Your task to perform on an android device: Open Youtube and go to "Your channel" Image 0: 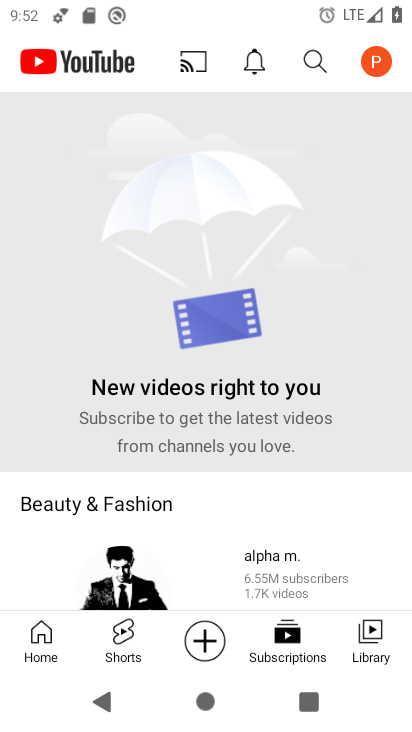
Step 0: press home button
Your task to perform on an android device: Open Youtube and go to "Your channel" Image 1: 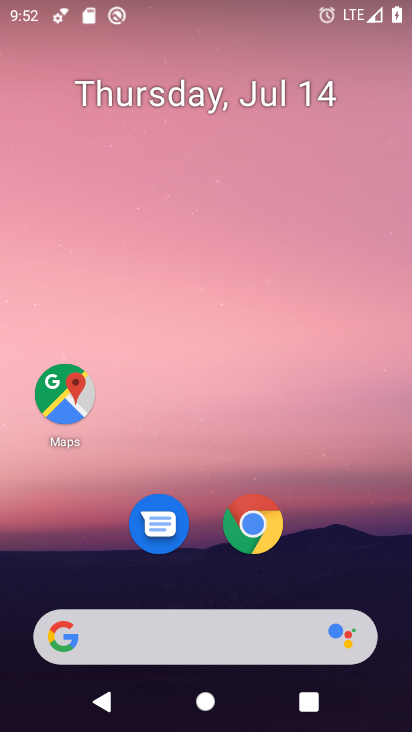
Step 1: drag from (326, 548) to (327, 0)
Your task to perform on an android device: Open Youtube and go to "Your channel" Image 2: 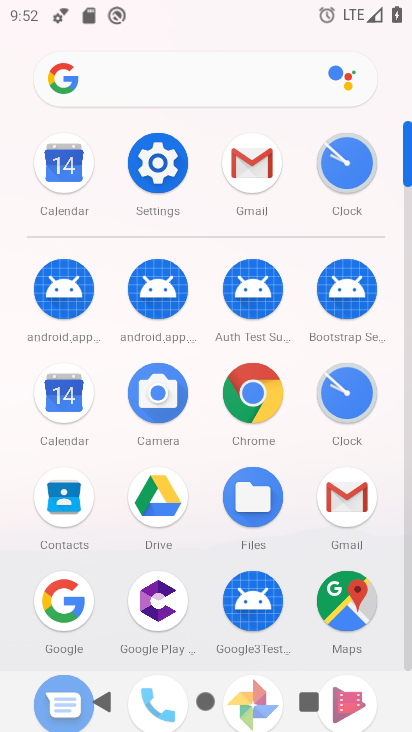
Step 2: drag from (300, 440) to (303, 38)
Your task to perform on an android device: Open Youtube and go to "Your channel" Image 3: 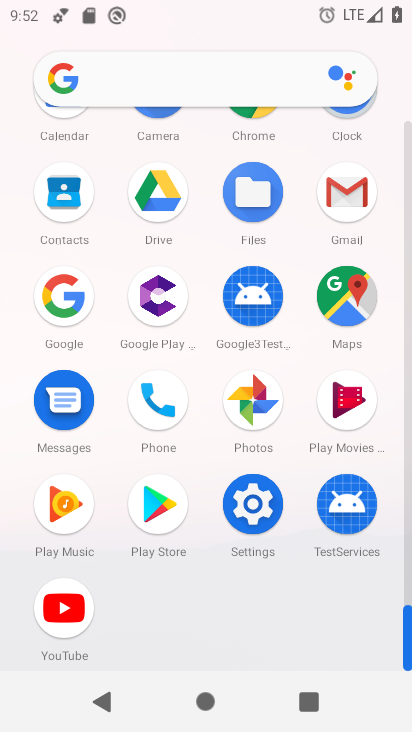
Step 3: click (69, 601)
Your task to perform on an android device: Open Youtube and go to "Your channel" Image 4: 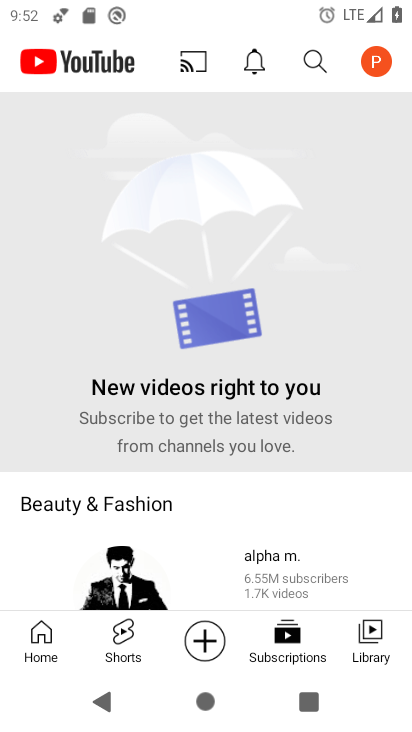
Step 4: click (376, 63)
Your task to perform on an android device: Open Youtube and go to "Your channel" Image 5: 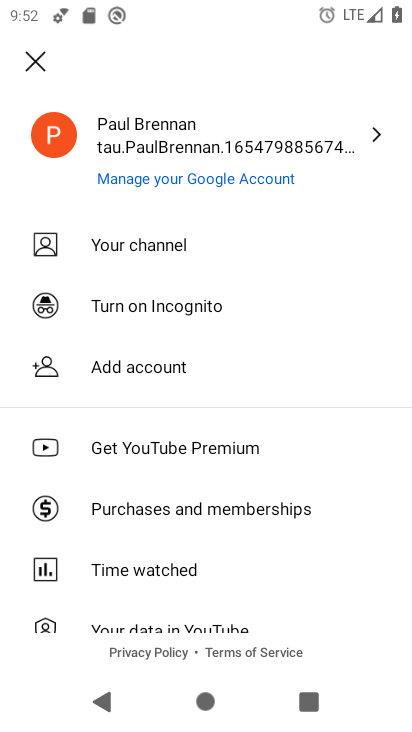
Step 5: click (183, 240)
Your task to perform on an android device: Open Youtube and go to "Your channel" Image 6: 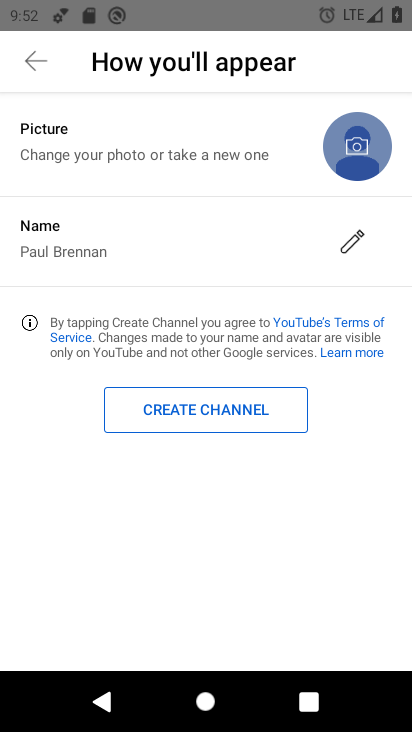
Step 6: task complete